Your task to perform on an android device: Show me the alarms in the clock app Image 0: 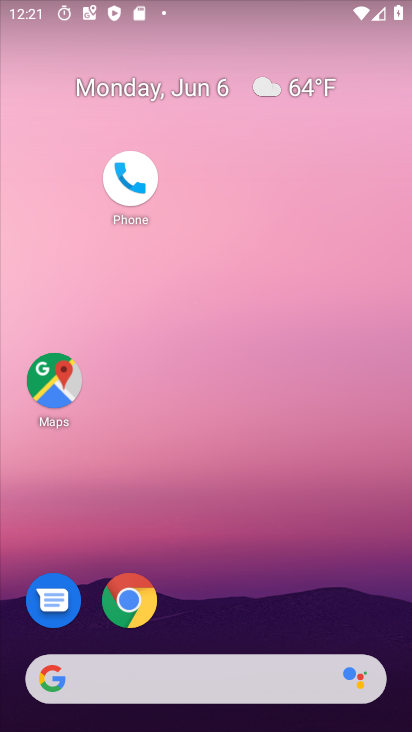
Step 0: drag from (239, 693) to (203, 172)
Your task to perform on an android device: Show me the alarms in the clock app Image 1: 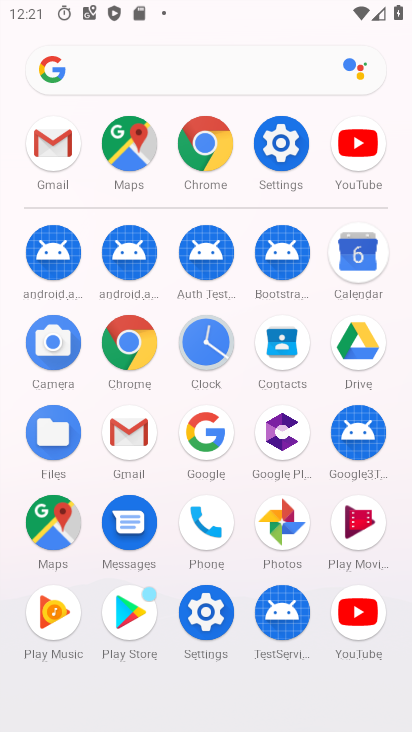
Step 1: click (201, 333)
Your task to perform on an android device: Show me the alarms in the clock app Image 2: 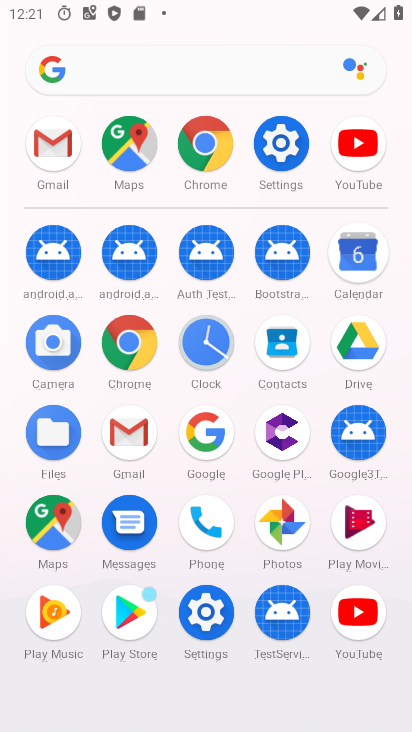
Step 2: click (201, 333)
Your task to perform on an android device: Show me the alarms in the clock app Image 3: 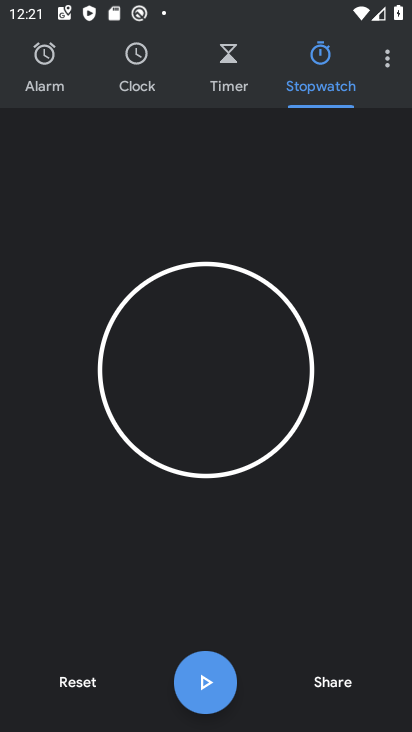
Step 3: click (50, 71)
Your task to perform on an android device: Show me the alarms in the clock app Image 4: 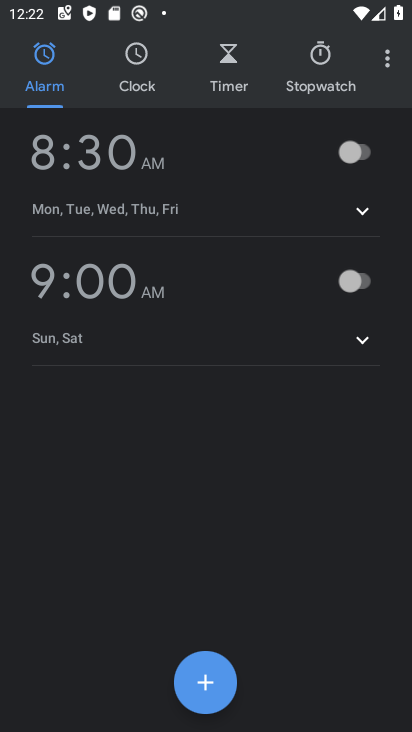
Step 4: task complete